Your task to perform on an android device: set default search engine in the chrome app Image 0: 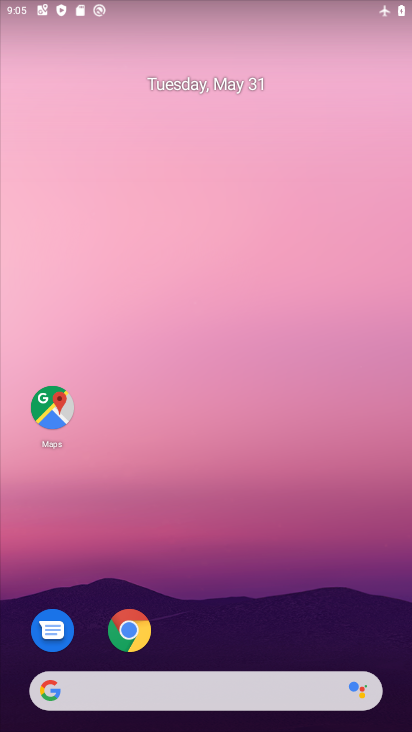
Step 0: click (211, 646)
Your task to perform on an android device: set default search engine in the chrome app Image 1: 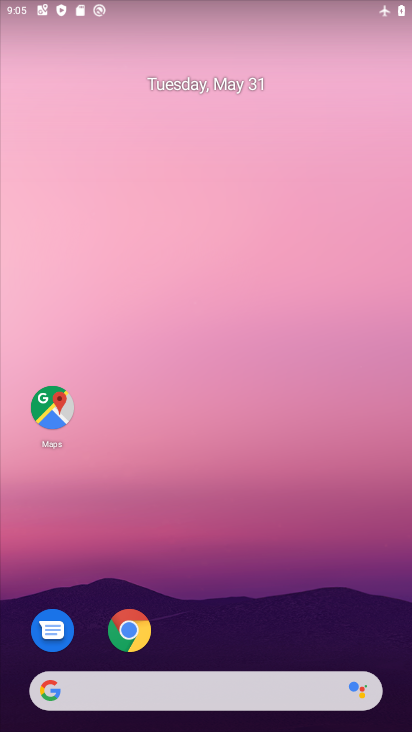
Step 1: drag from (215, 611) to (251, 283)
Your task to perform on an android device: set default search engine in the chrome app Image 2: 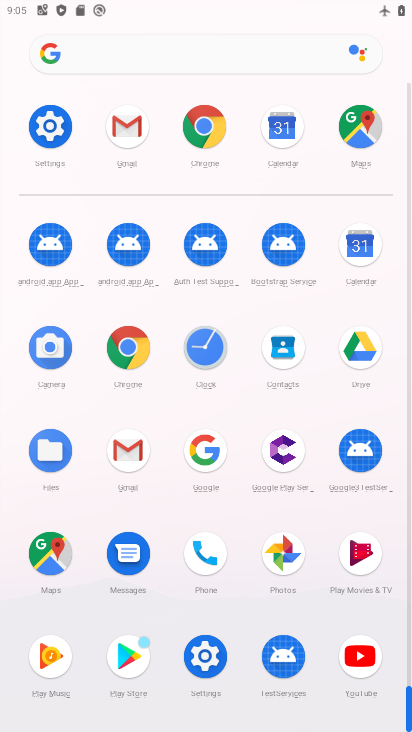
Step 2: click (121, 338)
Your task to perform on an android device: set default search engine in the chrome app Image 3: 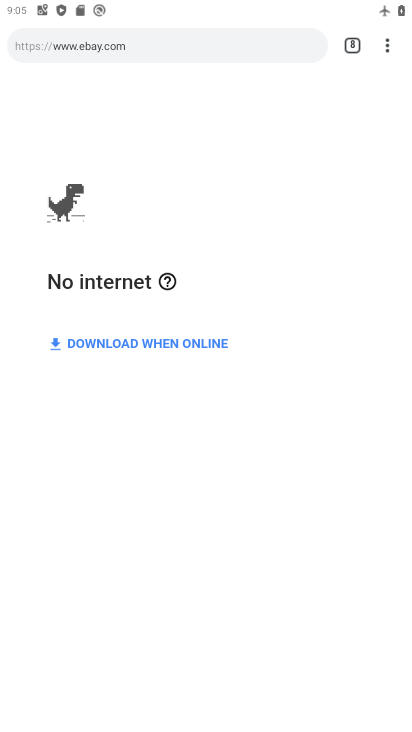
Step 3: click (393, 41)
Your task to perform on an android device: set default search engine in the chrome app Image 4: 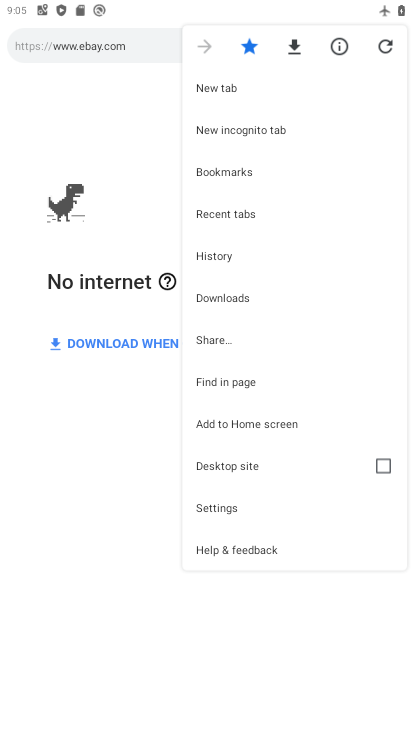
Step 4: click (255, 501)
Your task to perform on an android device: set default search engine in the chrome app Image 5: 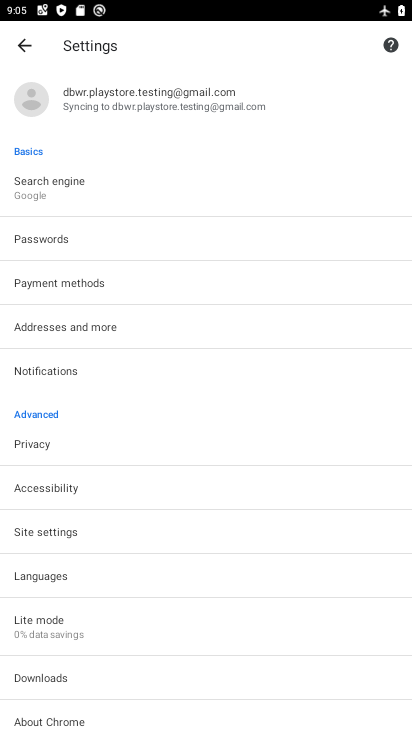
Step 5: click (72, 187)
Your task to perform on an android device: set default search engine in the chrome app Image 6: 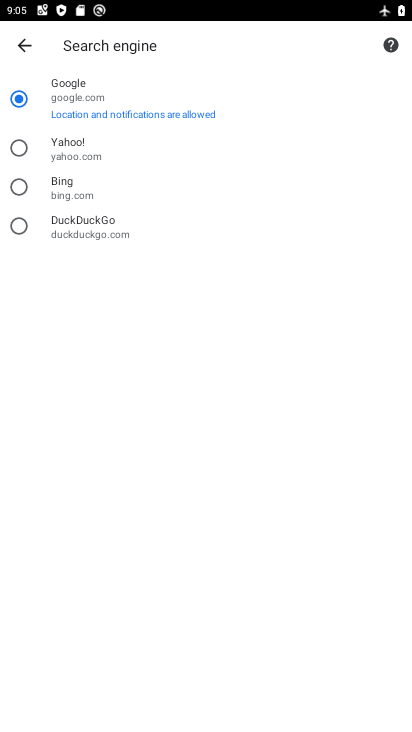
Step 6: click (60, 194)
Your task to perform on an android device: set default search engine in the chrome app Image 7: 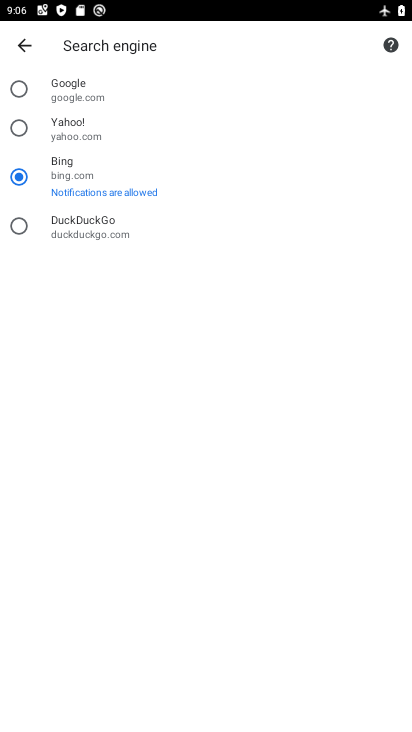
Step 7: task complete